Your task to perform on an android device: What's the weather going to be tomorrow? Image 0: 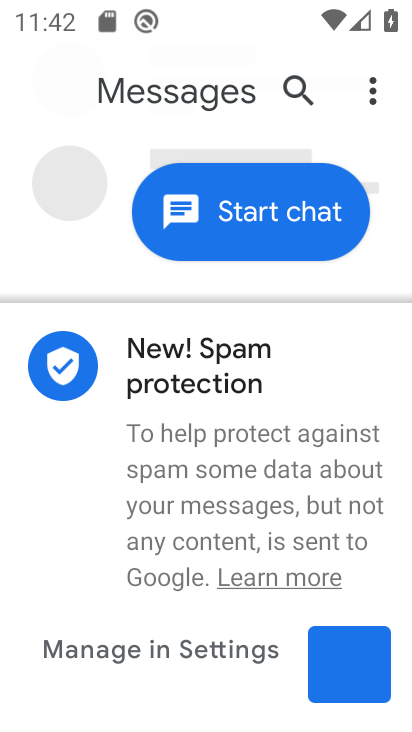
Step 0: press home button
Your task to perform on an android device: What's the weather going to be tomorrow? Image 1: 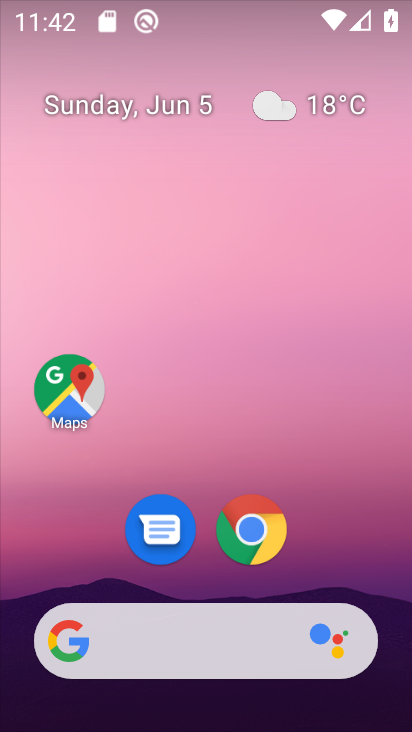
Step 1: click (112, 631)
Your task to perform on an android device: What's the weather going to be tomorrow? Image 2: 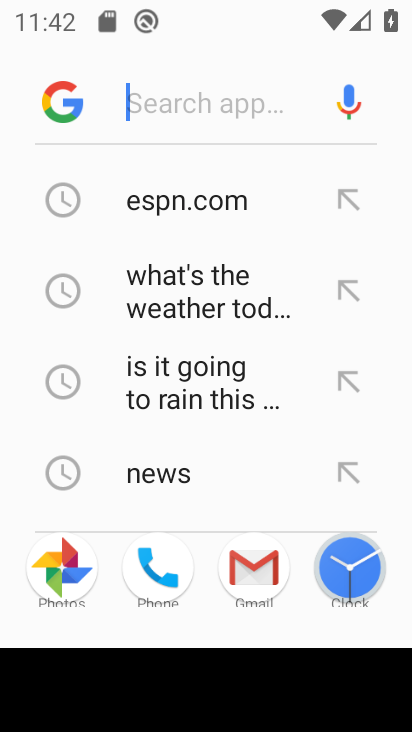
Step 2: type "what's the weather going to be tomorrow"
Your task to perform on an android device: What's the weather going to be tomorrow? Image 3: 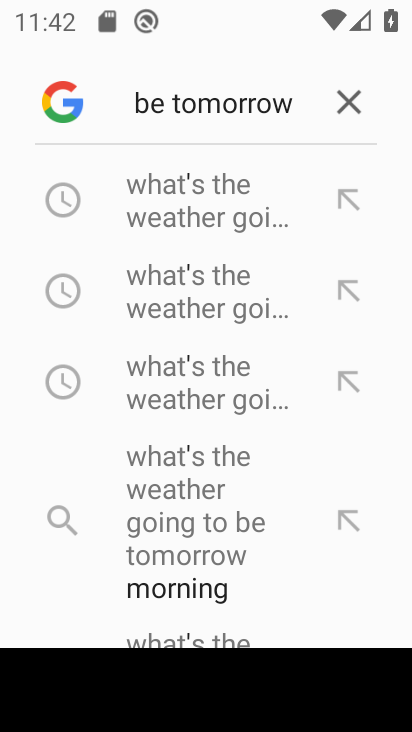
Step 3: click (225, 193)
Your task to perform on an android device: What's the weather going to be tomorrow? Image 4: 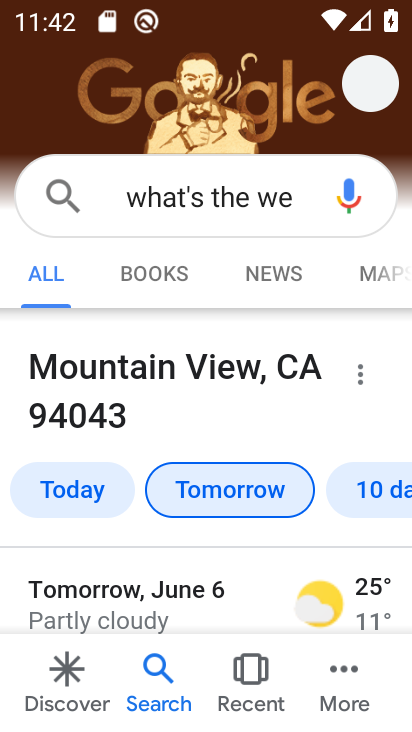
Step 4: task complete